Your task to perform on an android device: refresh tabs in the chrome app Image 0: 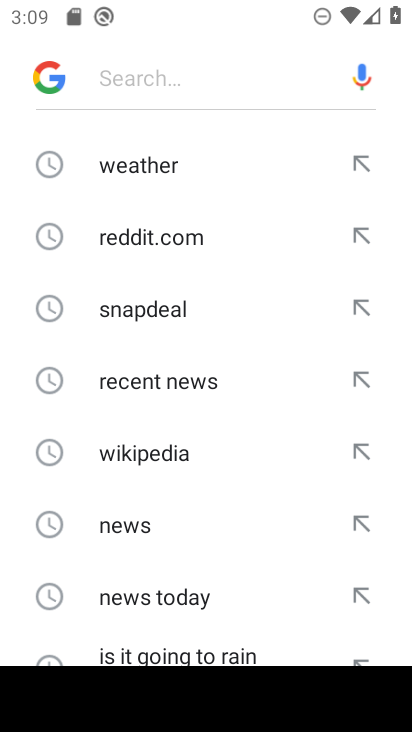
Step 0: press home button
Your task to perform on an android device: refresh tabs in the chrome app Image 1: 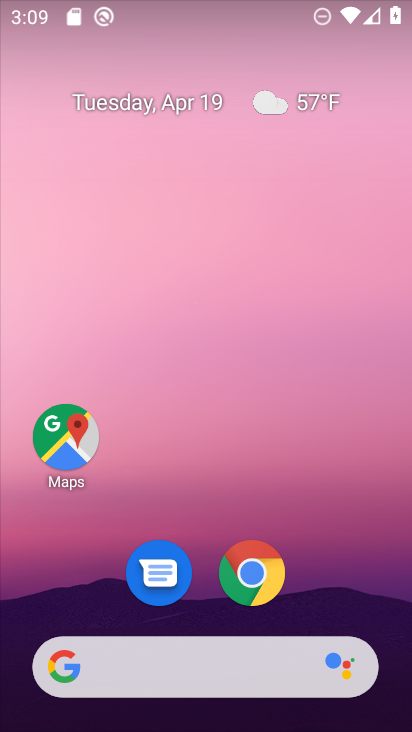
Step 1: click (257, 571)
Your task to perform on an android device: refresh tabs in the chrome app Image 2: 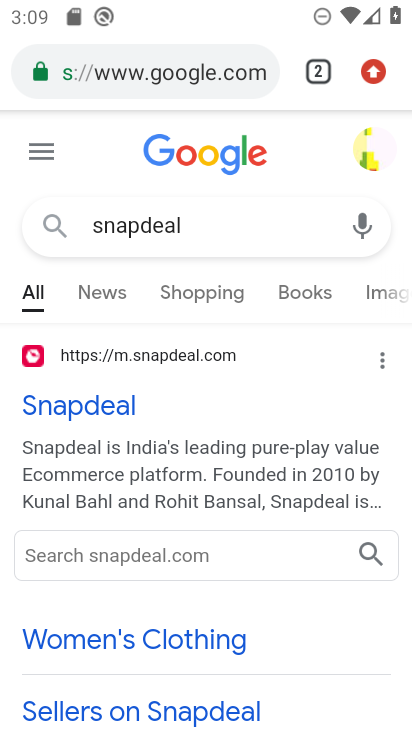
Step 2: click (371, 70)
Your task to perform on an android device: refresh tabs in the chrome app Image 3: 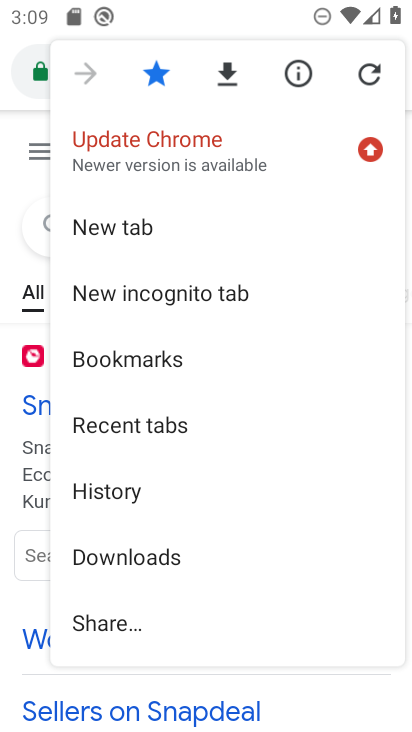
Step 3: click (371, 70)
Your task to perform on an android device: refresh tabs in the chrome app Image 4: 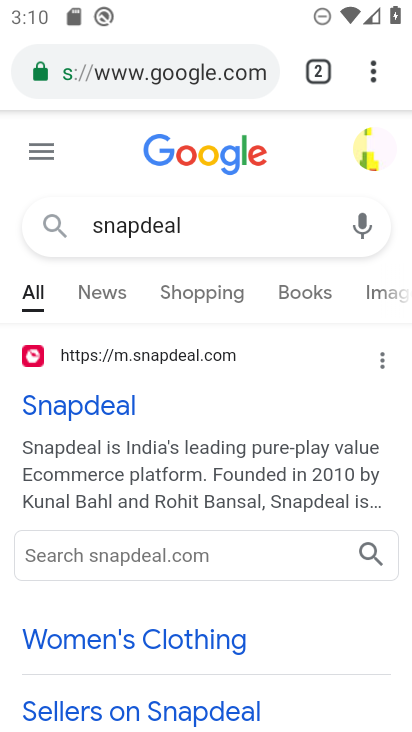
Step 4: task complete